Your task to perform on an android device: check out phone information Image 0: 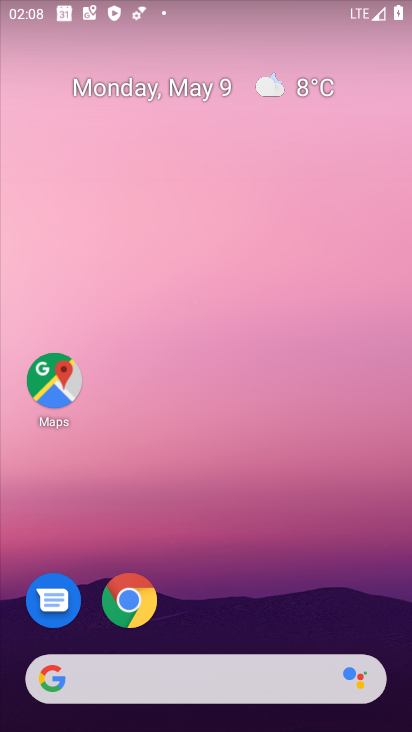
Step 0: drag from (224, 633) to (214, 76)
Your task to perform on an android device: check out phone information Image 1: 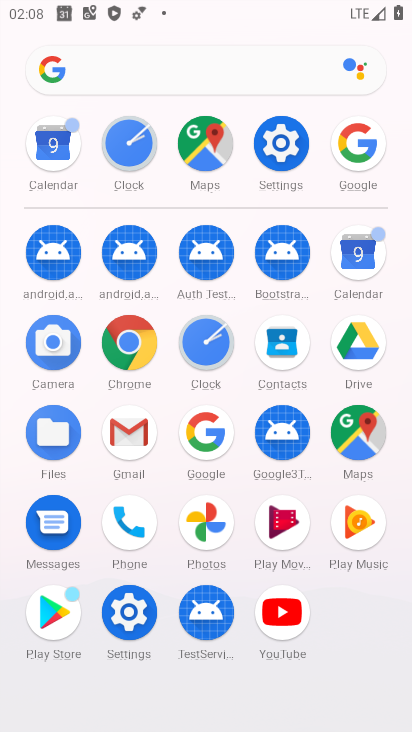
Step 1: click (280, 142)
Your task to perform on an android device: check out phone information Image 2: 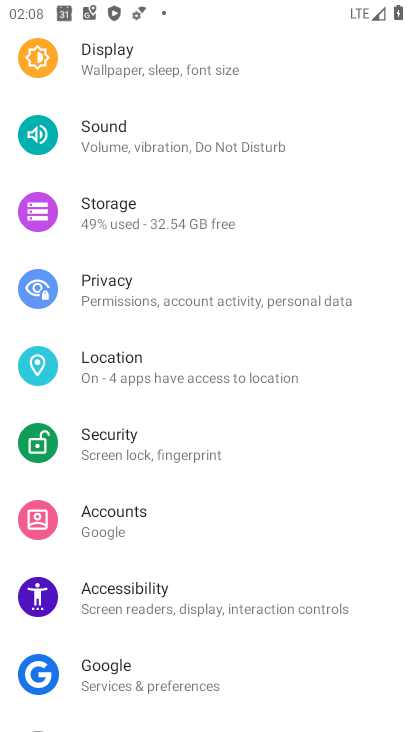
Step 2: drag from (192, 629) to (234, 52)
Your task to perform on an android device: check out phone information Image 3: 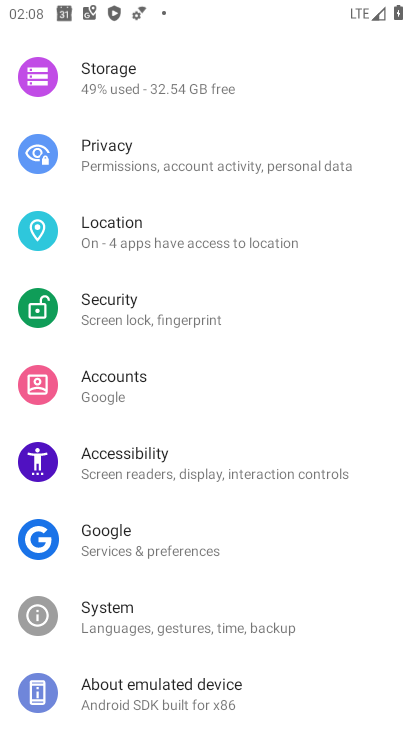
Step 3: click (200, 695)
Your task to perform on an android device: check out phone information Image 4: 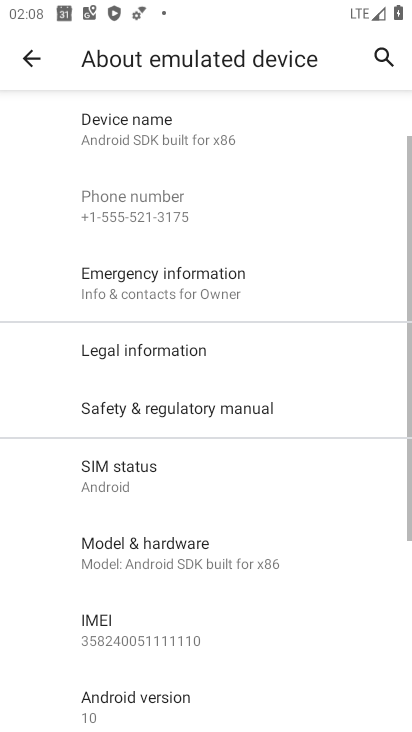
Step 4: task complete